Your task to perform on an android device: turn pop-ups on in chrome Image 0: 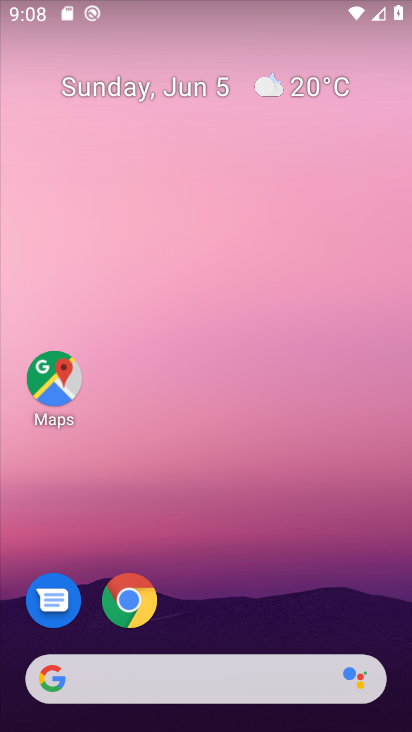
Step 0: drag from (232, 619) to (211, 37)
Your task to perform on an android device: turn pop-ups on in chrome Image 1: 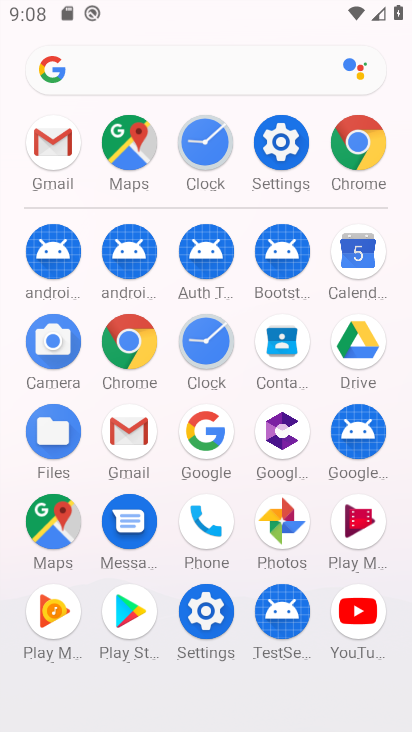
Step 1: click (132, 334)
Your task to perform on an android device: turn pop-ups on in chrome Image 2: 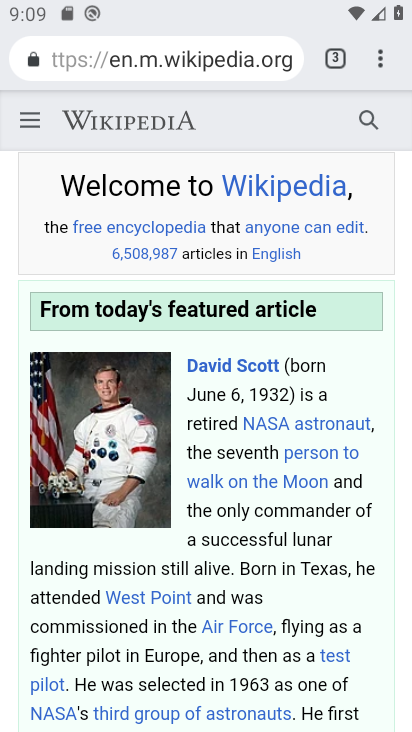
Step 2: click (378, 54)
Your task to perform on an android device: turn pop-ups on in chrome Image 3: 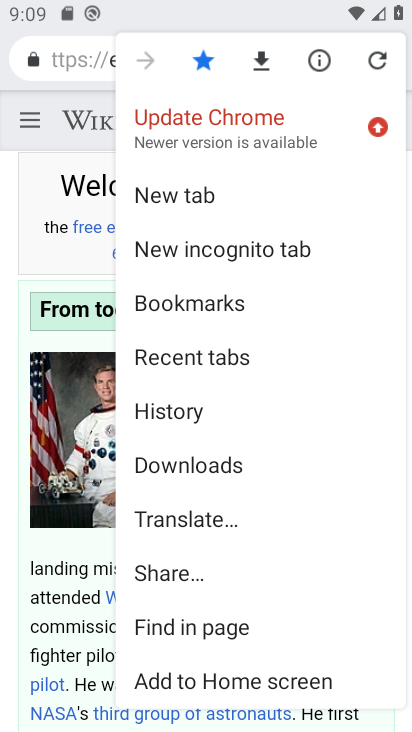
Step 3: drag from (236, 471) to (273, 139)
Your task to perform on an android device: turn pop-ups on in chrome Image 4: 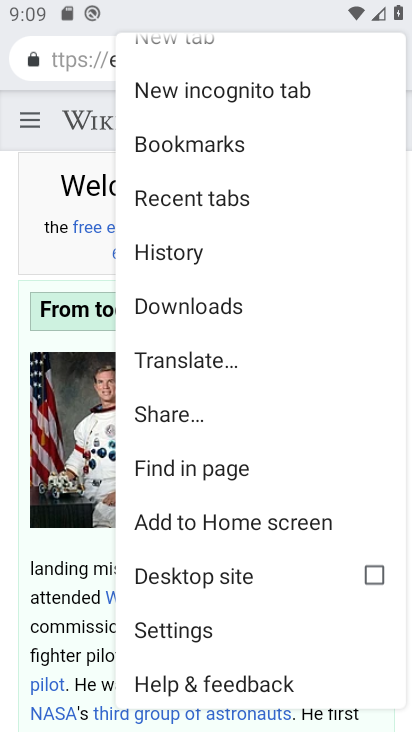
Step 4: click (206, 621)
Your task to perform on an android device: turn pop-ups on in chrome Image 5: 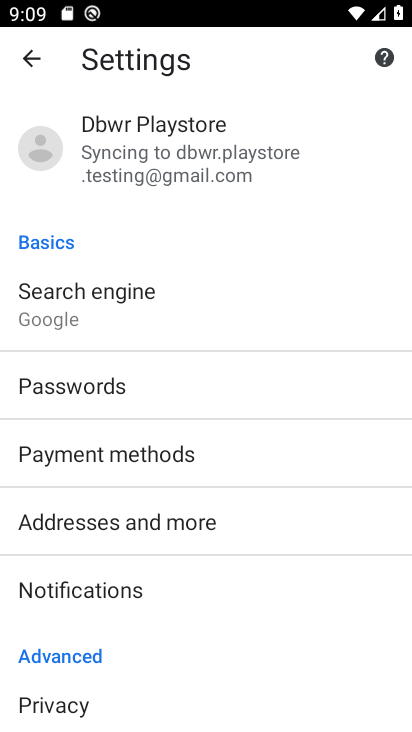
Step 5: drag from (269, 536) to (270, 70)
Your task to perform on an android device: turn pop-ups on in chrome Image 6: 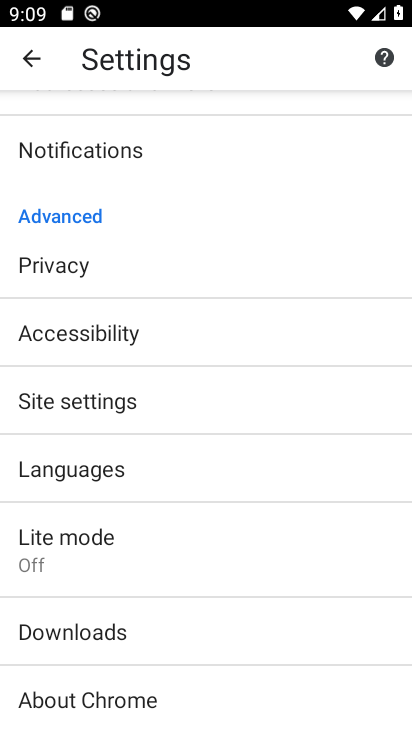
Step 6: click (181, 402)
Your task to perform on an android device: turn pop-ups on in chrome Image 7: 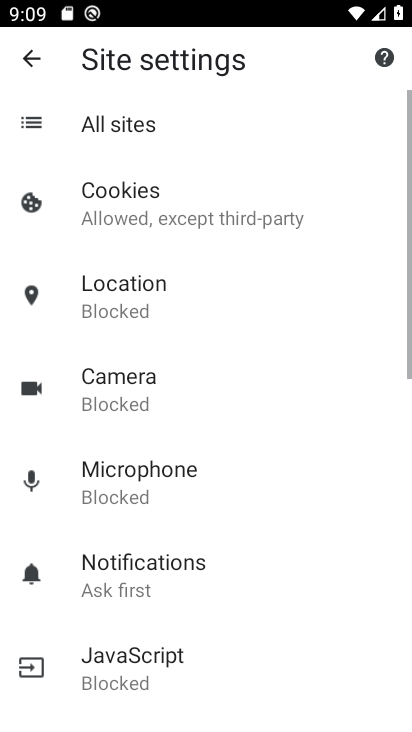
Step 7: drag from (210, 510) to (264, 65)
Your task to perform on an android device: turn pop-ups on in chrome Image 8: 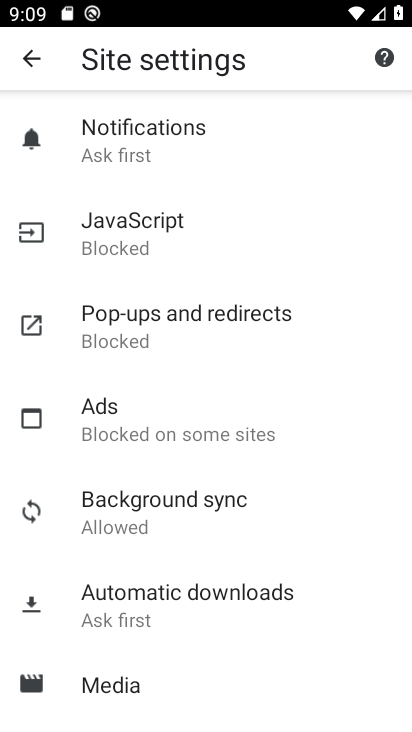
Step 8: click (232, 322)
Your task to perform on an android device: turn pop-ups on in chrome Image 9: 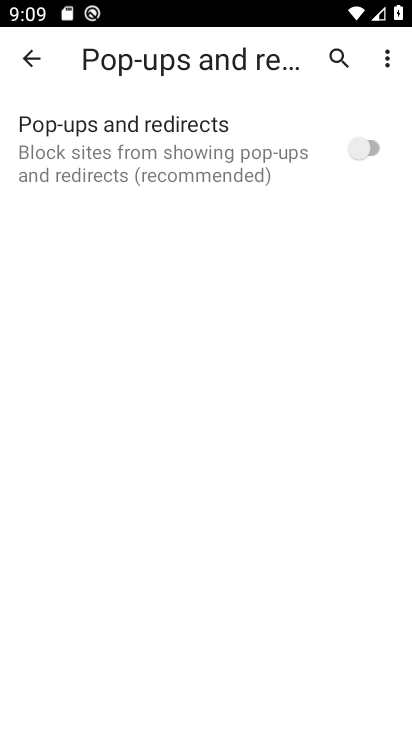
Step 9: click (364, 148)
Your task to perform on an android device: turn pop-ups on in chrome Image 10: 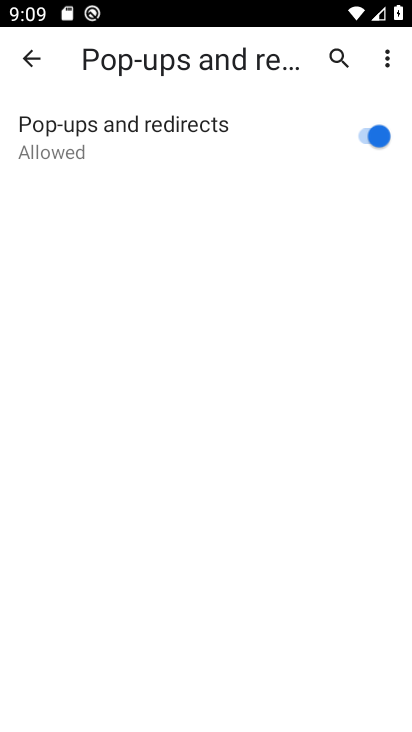
Step 10: task complete